Your task to perform on an android device: move a message to another label in the gmail app Image 0: 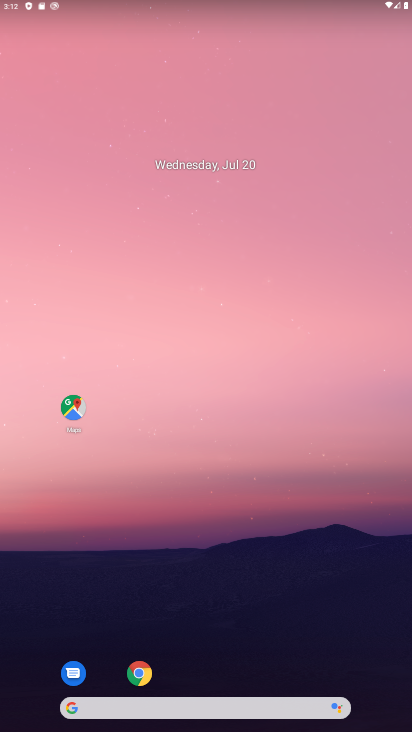
Step 0: drag from (214, 600) to (279, 112)
Your task to perform on an android device: move a message to another label in the gmail app Image 1: 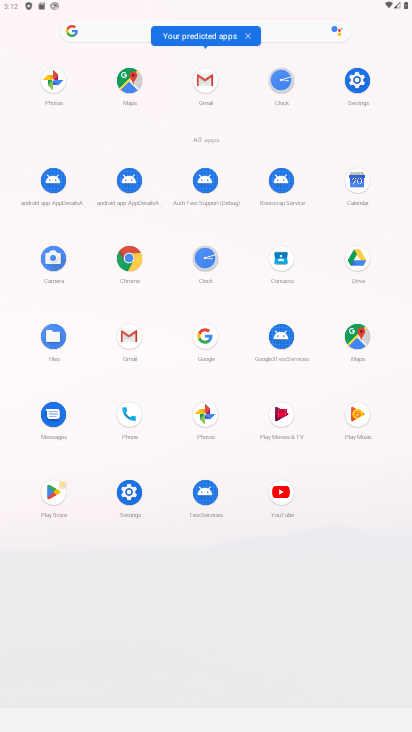
Step 1: click (201, 82)
Your task to perform on an android device: move a message to another label in the gmail app Image 2: 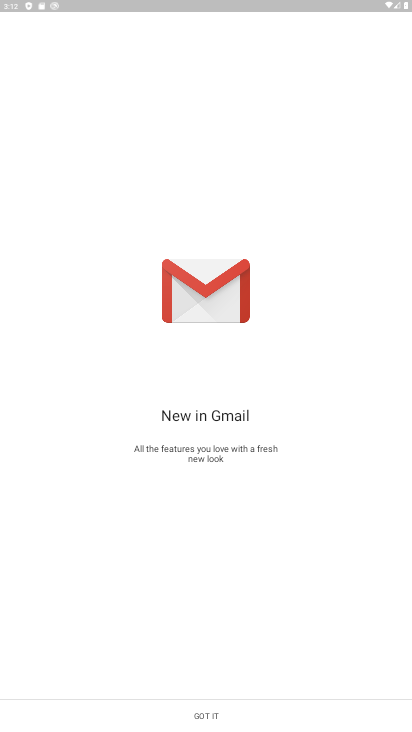
Step 2: click (240, 726)
Your task to perform on an android device: move a message to another label in the gmail app Image 3: 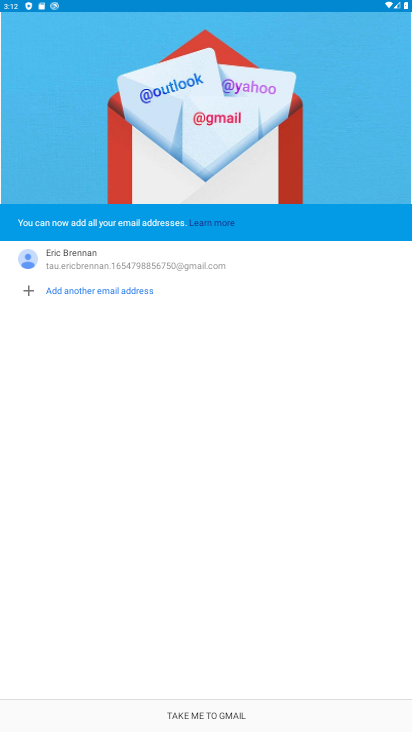
Step 3: click (233, 712)
Your task to perform on an android device: move a message to another label in the gmail app Image 4: 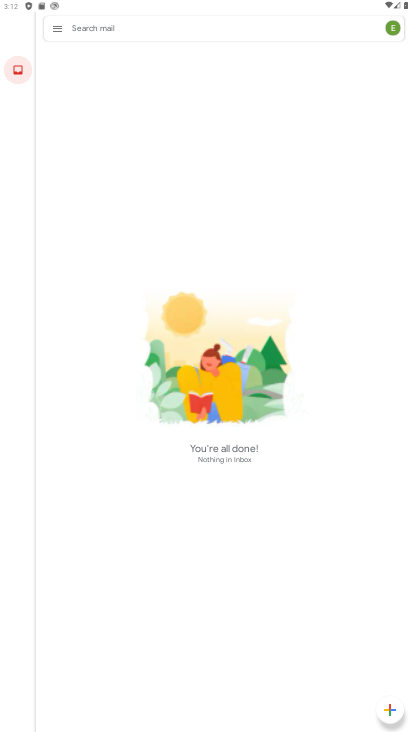
Step 4: click (49, 35)
Your task to perform on an android device: move a message to another label in the gmail app Image 5: 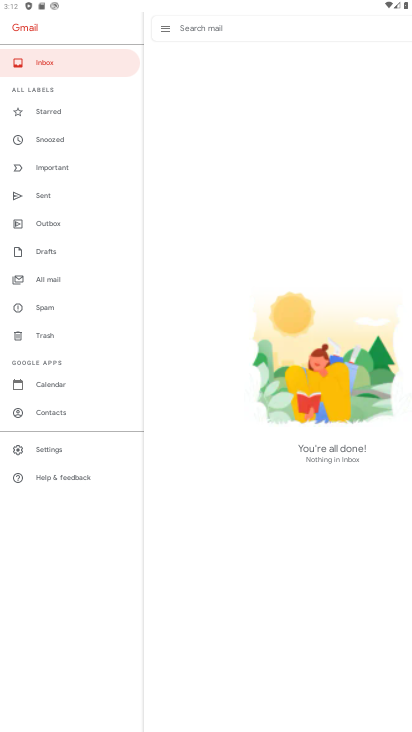
Step 5: click (34, 275)
Your task to perform on an android device: move a message to another label in the gmail app Image 6: 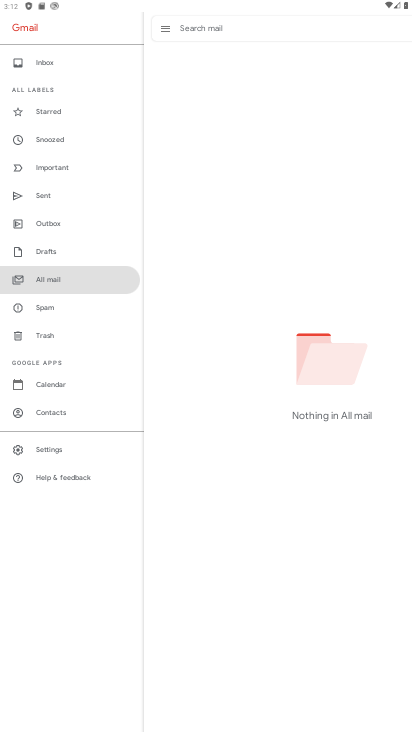
Step 6: task complete